Your task to perform on an android device: change notifications settings Image 0: 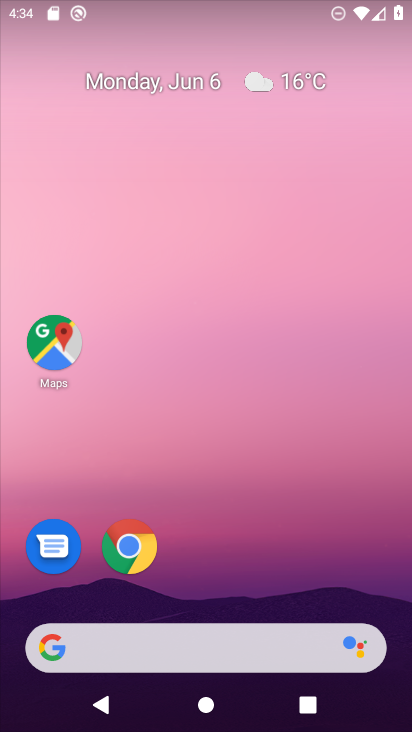
Step 0: drag from (226, 573) to (310, 18)
Your task to perform on an android device: change notifications settings Image 1: 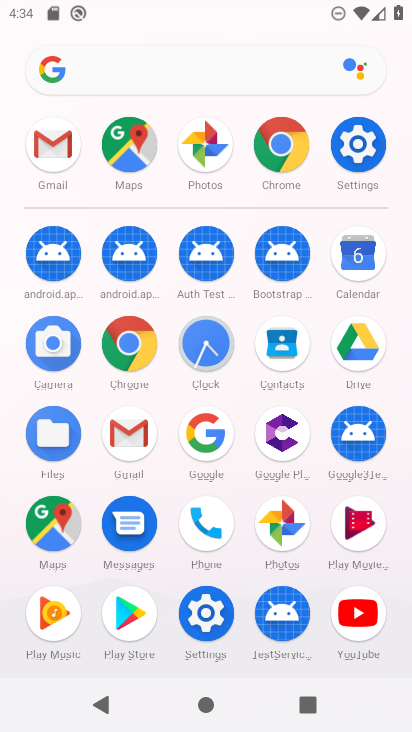
Step 1: click (361, 159)
Your task to perform on an android device: change notifications settings Image 2: 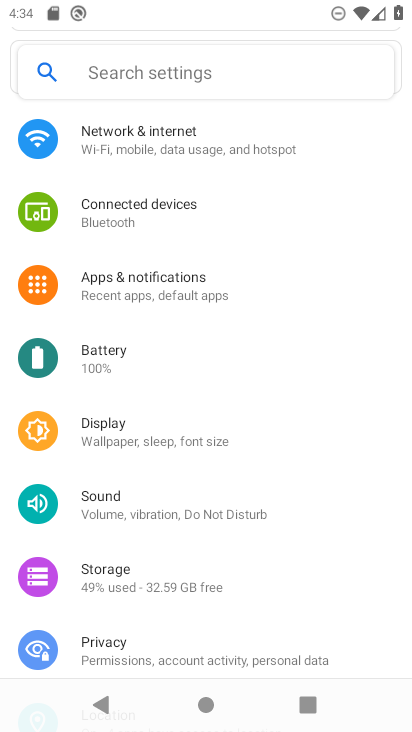
Step 2: click (222, 315)
Your task to perform on an android device: change notifications settings Image 3: 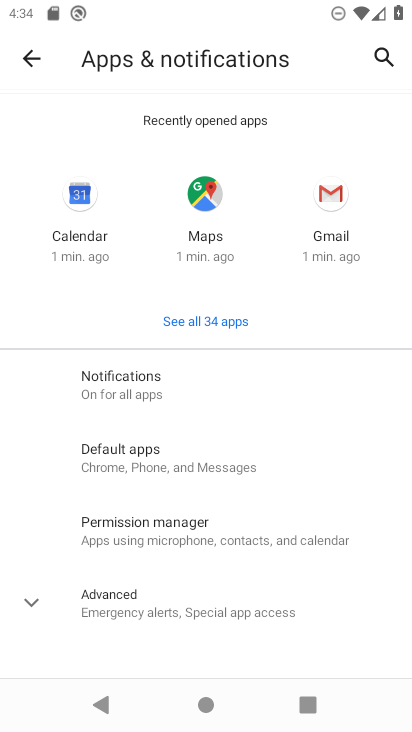
Step 3: click (107, 388)
Your task to perform on an android device: change notifications settings Image 4: 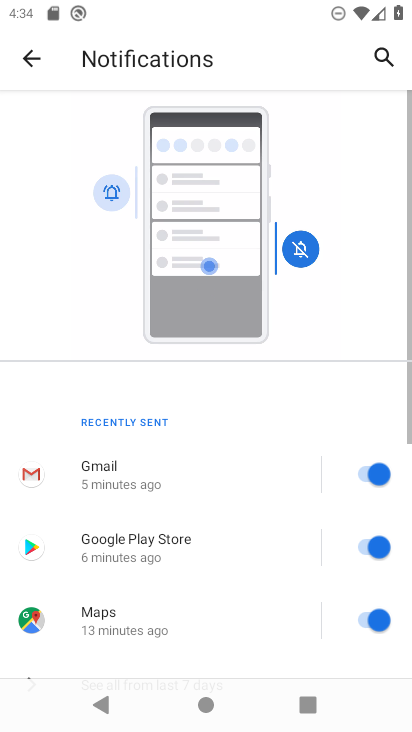
Step 4: drag from (192, 500) to (167, 129)
Your task to perform on an android device: change notifications settings Image 5: 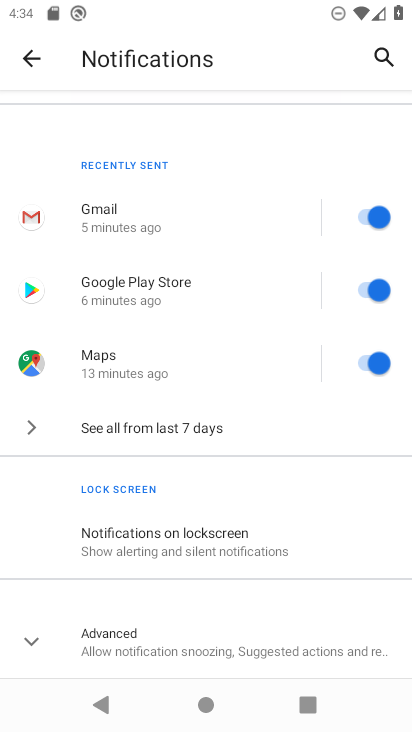
Step 5: click (184, 640)
Your task to perform on an android device: change notifications settings Image 6: 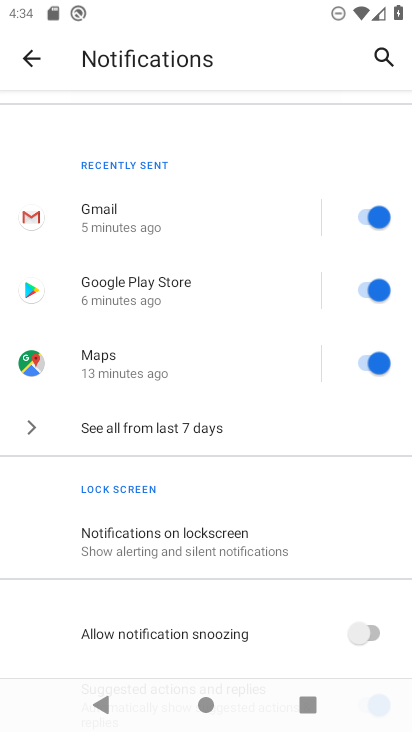
Step 6: drag from (190, 633) to (109, 47)
Your task to perform on an android device: change notifications settings Image 7: 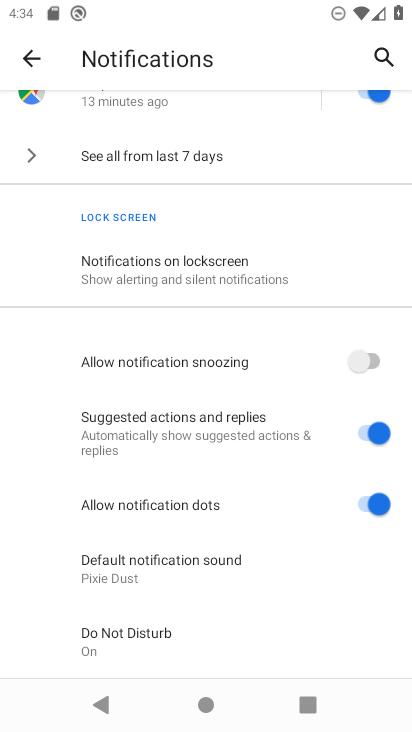
Step 7: click (159, 165)
Your task to perform on an android device: change notifications settings Image 8: 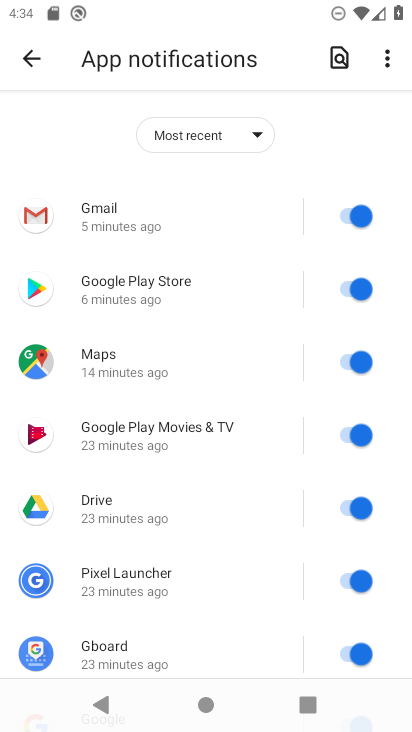
Step 8: click (170, 135)
Your task to perform on an android device: change notifications settings Image 9: 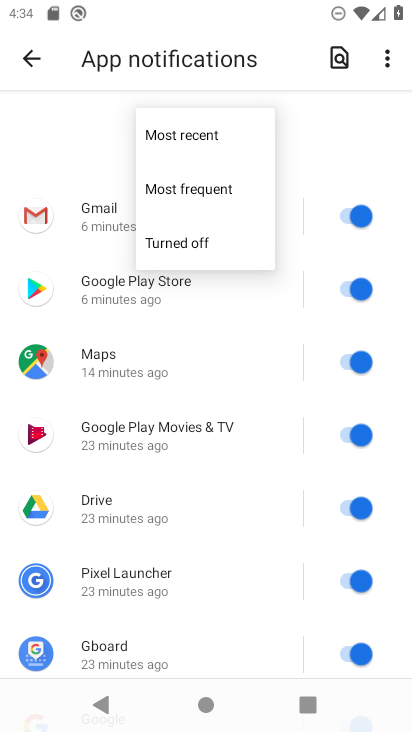
Step 9: click (203, 237)
Your task to perform on an android device: change notifications settings Image 10: 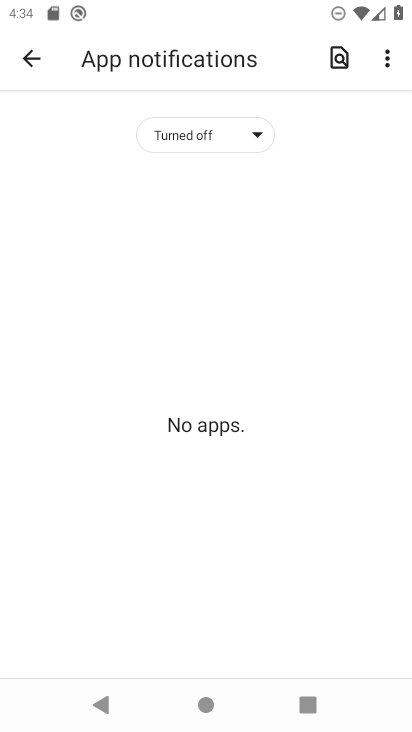
Step 10: task complete